Your task to perform on an android device: open a new tab in the chrome app Image 0: 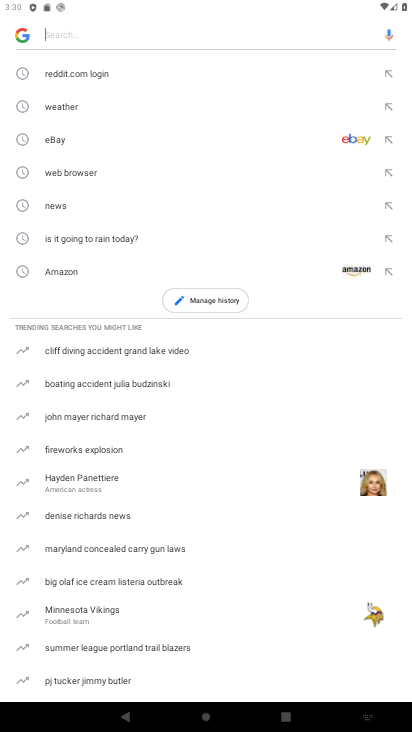
Step 0: press home button
Your task to perform on an android device: open a new tab in the chrome app Image 1: 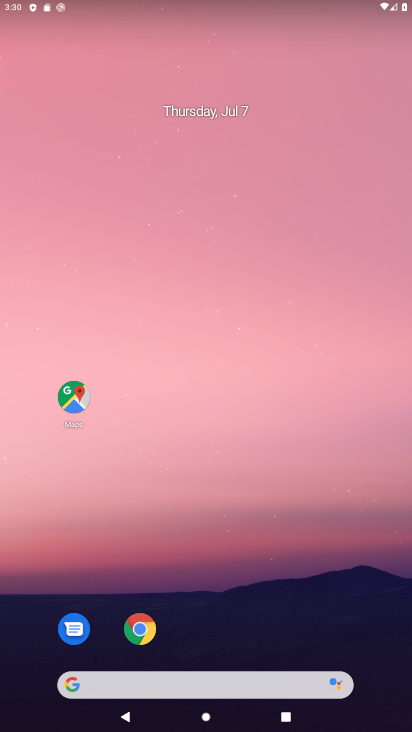
Step 1: click (128, 618)
Your task to perform on an android device: open a new tab in the chrome app Image 2: 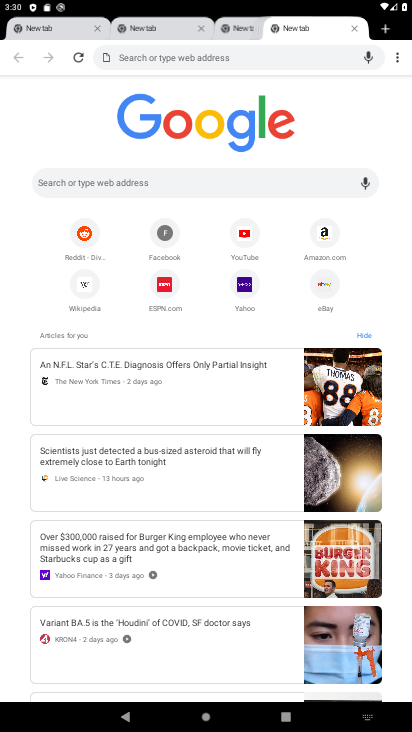
Step 2: click (145, 21)
Your task to perform on an android device: open a new tab in the chrome app Image 3: 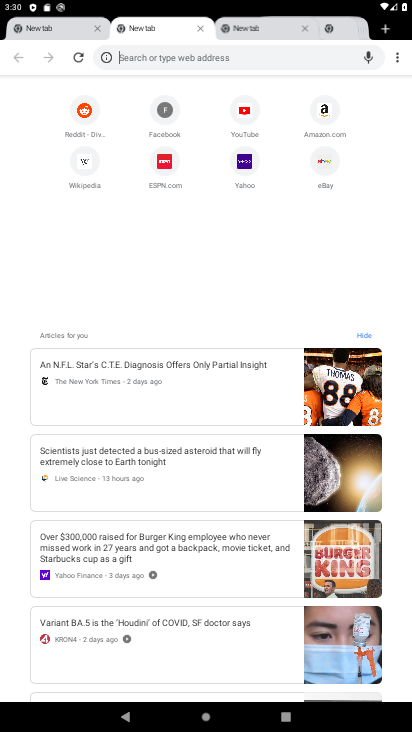
Step 3: click (377, 24)
Your task to perform on an android device: open a new tab in the chrome app Image 4: 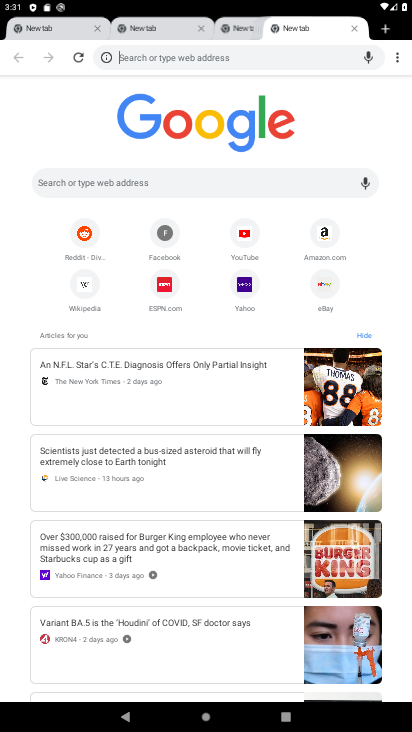
Step 4: task complete